Your task to perform on an android device: Go to notification settings Image 0: 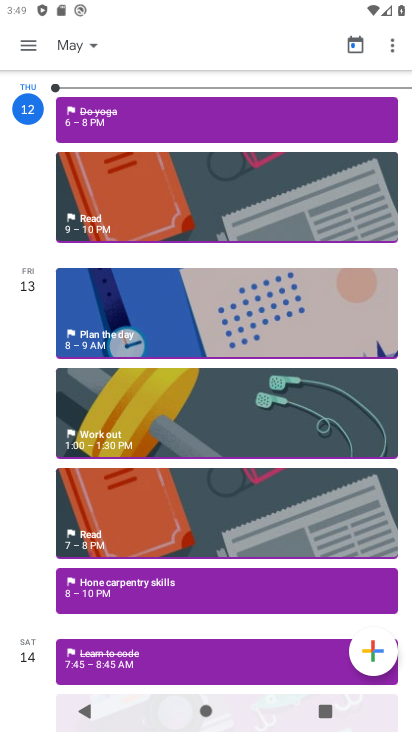
Step 0: press home button
Your task to perform on an android device: Go to notification settings Image 1: 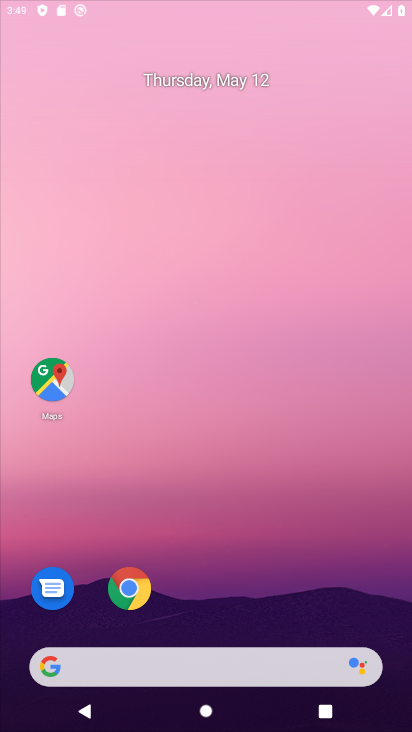
Step 1: drag from (87, 542) to (186, 1)
Your task to perform on an android device: Go to notification settings Image 2: 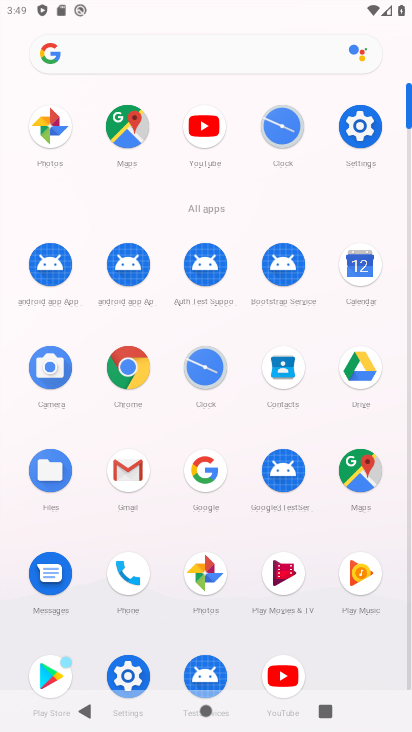
Step 2: click (350, 127)
Your task to perform on an android device: Go to notification settings Image 3: 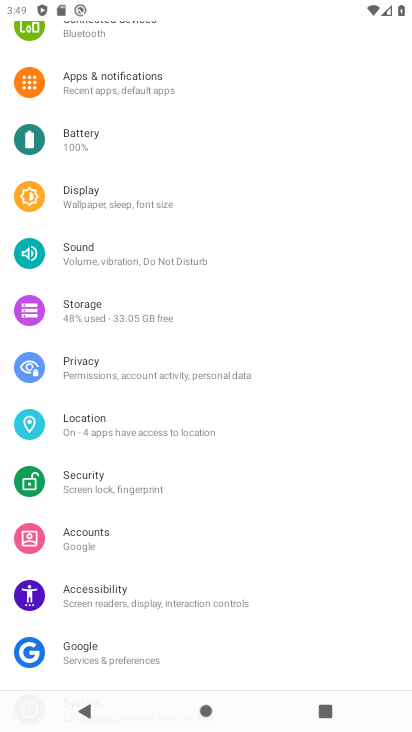
Step 3: click (141, 79)
Your task to perform on an android device: Go to notification settings Image 4: 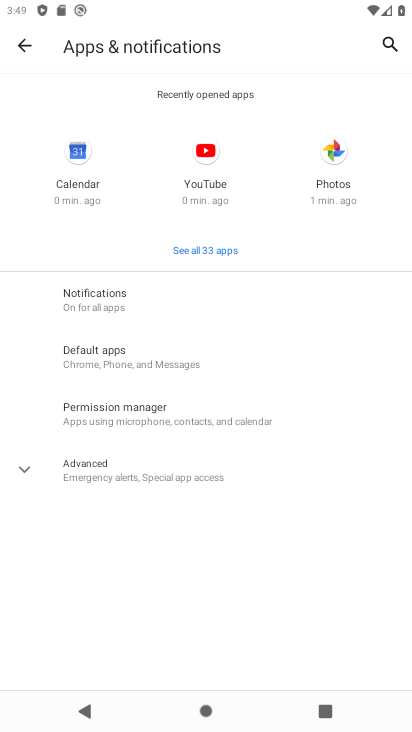
Step 4: click (144, 300)
Your task to perform on an android device: Go to notification settings Image 5: 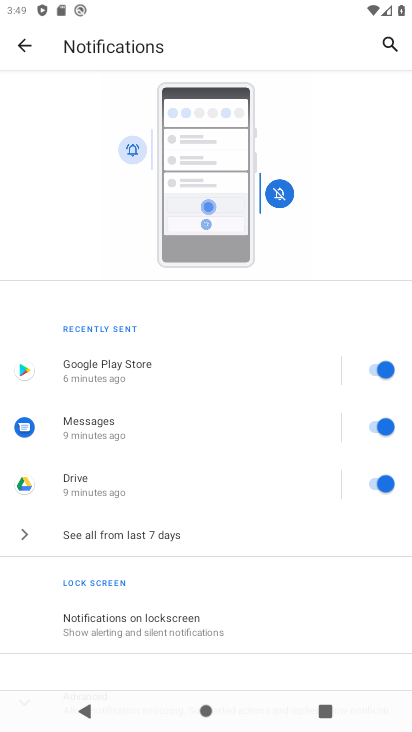
Step 5: drag from (242, 566) to (234, 324)
Your task to perform on an android device: Go to notification settings Image 6: 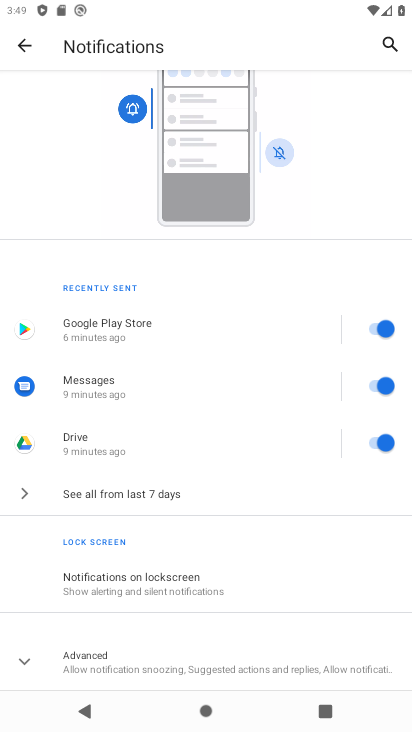
Step 6: click (207, 296)
Your task to perform on an android device: Go to notification settings Image 7: 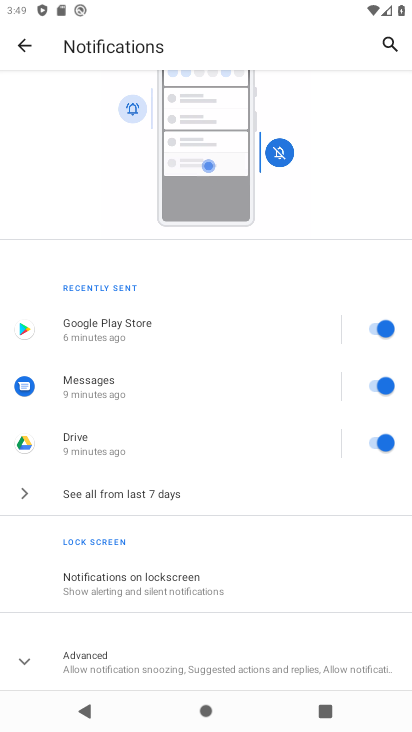
Step 7: click (160, 651)
Your task to perform on an android device: Go to notification settings Image 8: 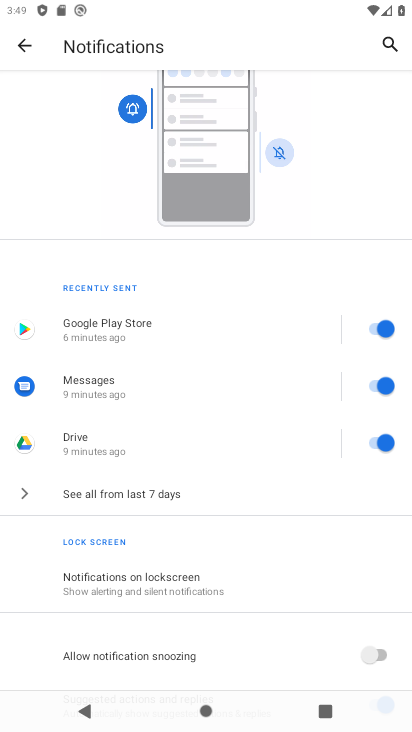
Step 8: task complete